Your task to perform on an android device: Open Youtube and go to "Your channel" Image 0: 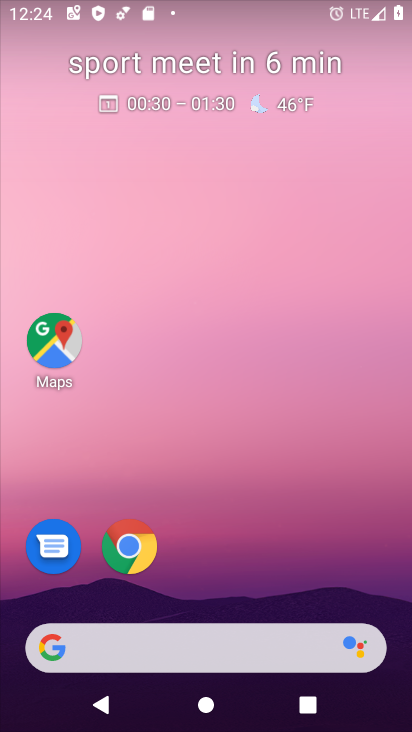
Step 0: drag from (342, 602) to (407, 0)
Your task to perform on an android device: Open Youtube and go to "Your channel" Image 1: 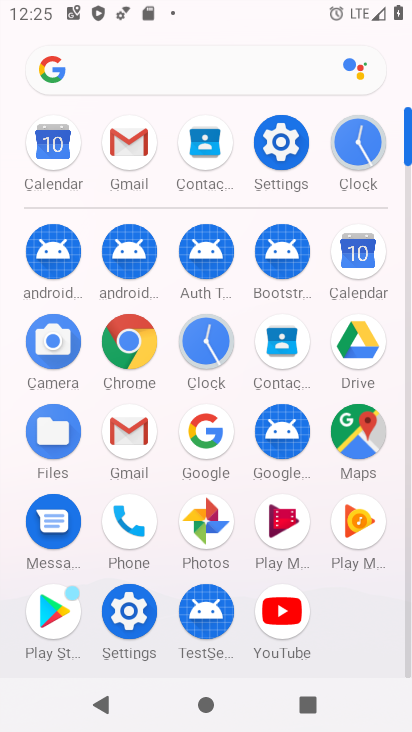
Step 1: click (288, 612)
Your task to perform on an android device: Open Youtube and go to "Your channel" Image 2: 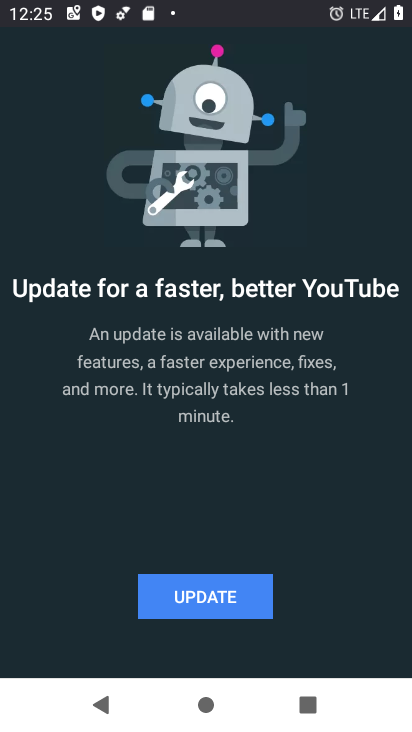
Step 2: click (216, 601)
Your task to perform on an android device: Open Youtube and go to "Your channel" Image 3: 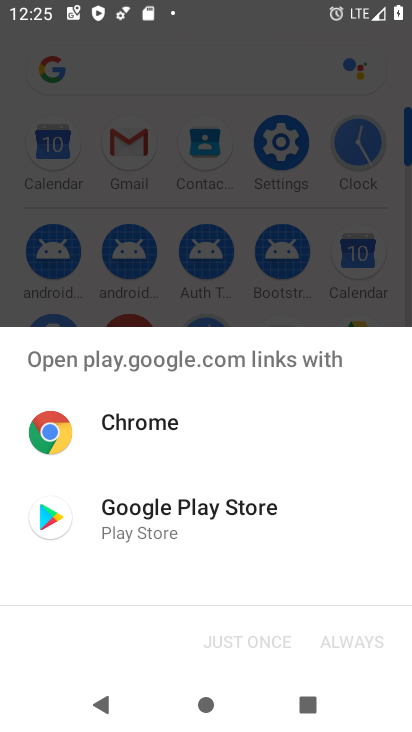
Step 3: click (106, 511)
Your task to perform on an android device: Open Youtube and go to "Your channel" Image 4: 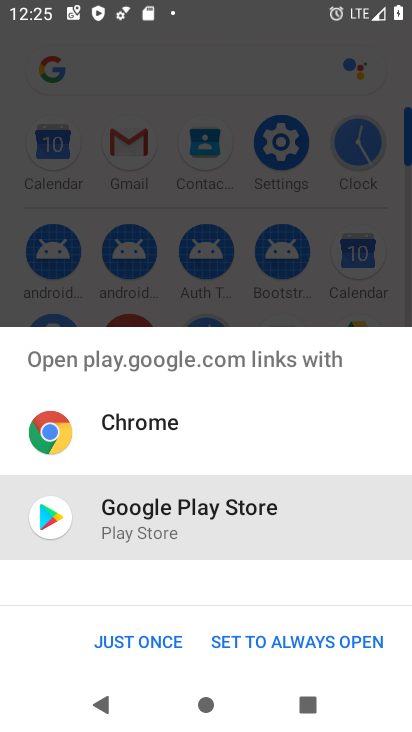
Step 4: click (128, 639)
Your task to perform on an android device: Open Youtube and go to "Your channel" Image 5: 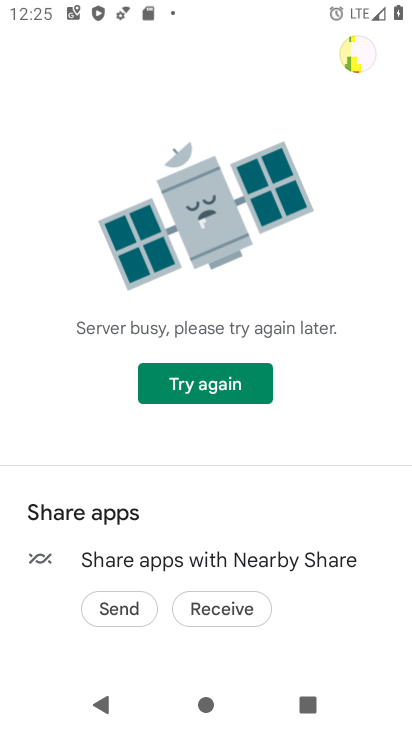
Step 5: task complete